Your task to perform on an android device: delete location history Image 0: 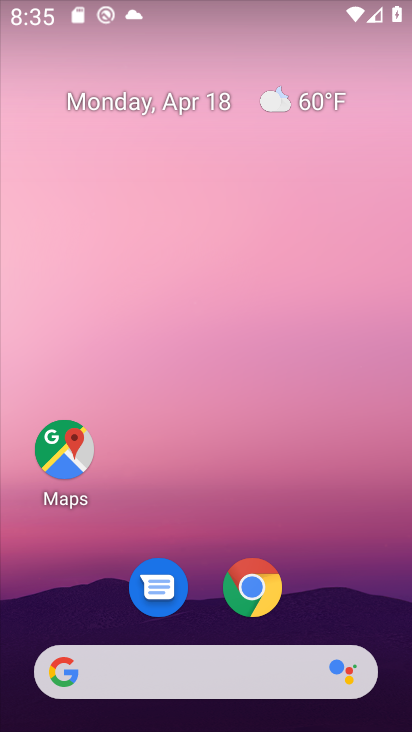
Step 0: drag from (370, 580) to (306, 110)
Your task to perform on an android device: delete location history Image 1: 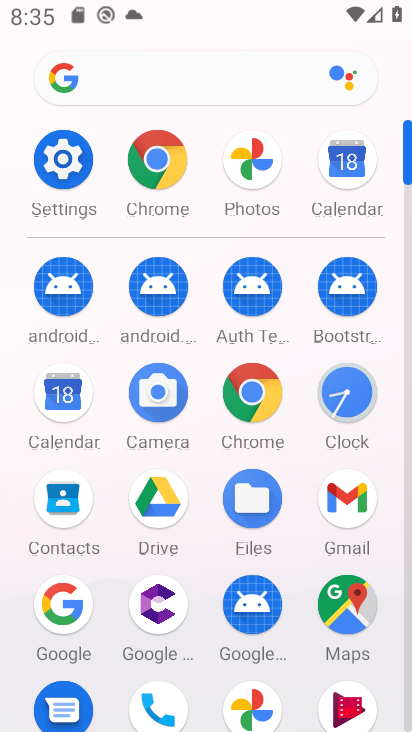
Step 1: click (78, 214)
Your task to perform on an android device: delete location history Image 2: 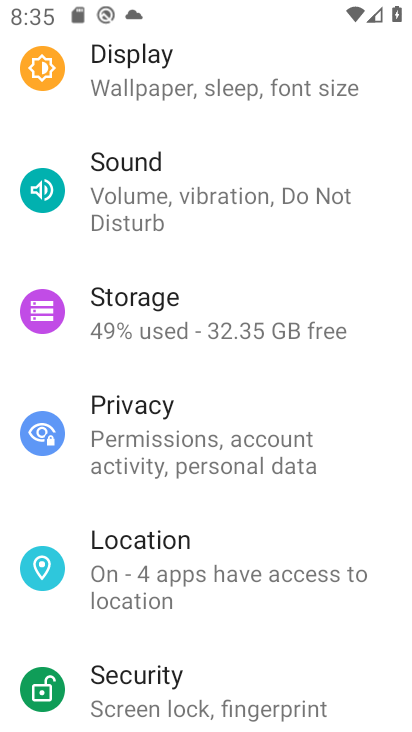
Step 2: click (312, 578)
Your task to perform on an android device: delete location history Image 3: 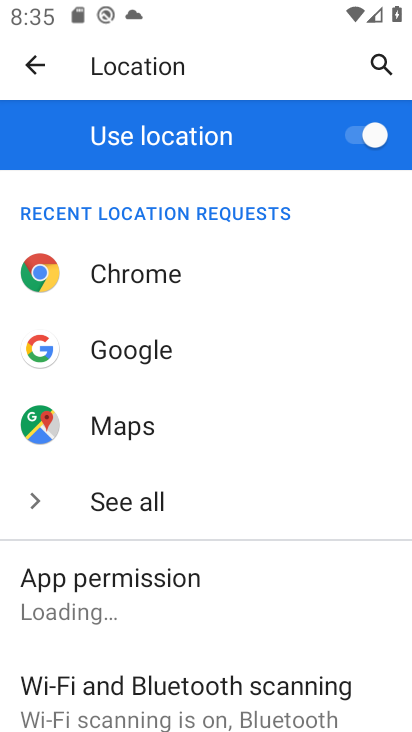
Step 3: drag from (306, 608) to (314, 211)
Your task to perform on an android device: delete location history Image 4: 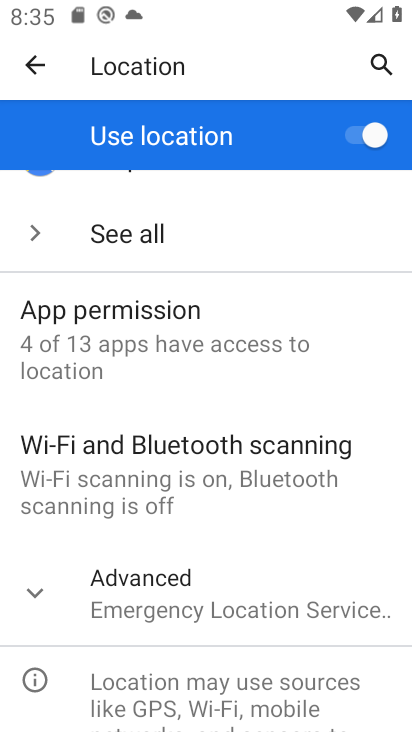
Step 4: click (267, 592)
Your task to perform on an android device: delete location history Image 5: 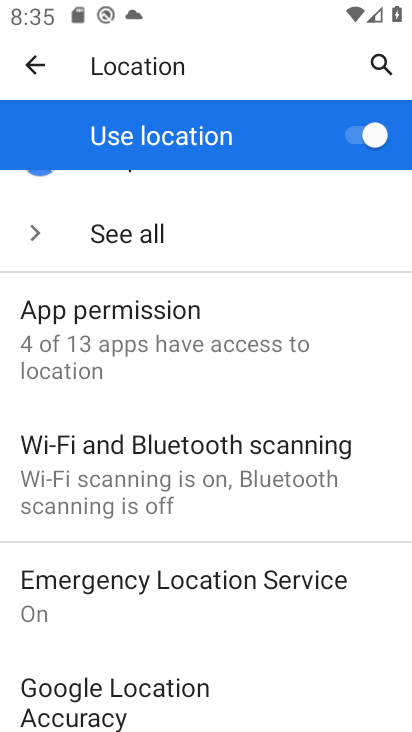
Step 5: drag from (274, 653) to (311, 216)
Your task to perform on an android device: delete location history Image 6: 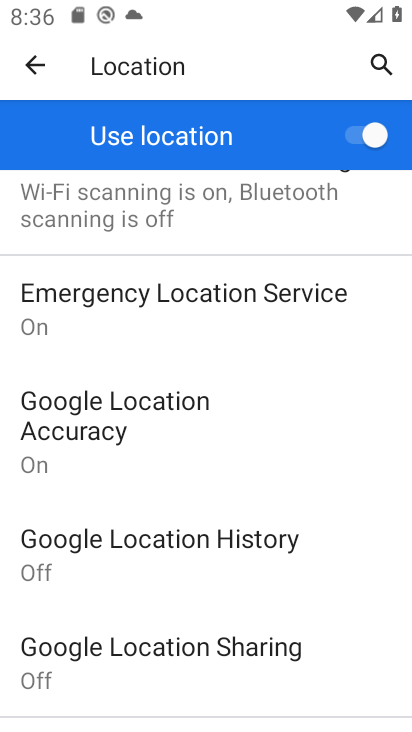
Step 6: click (269, 637)
Your task to perform on an android device: delete location history Image 7: 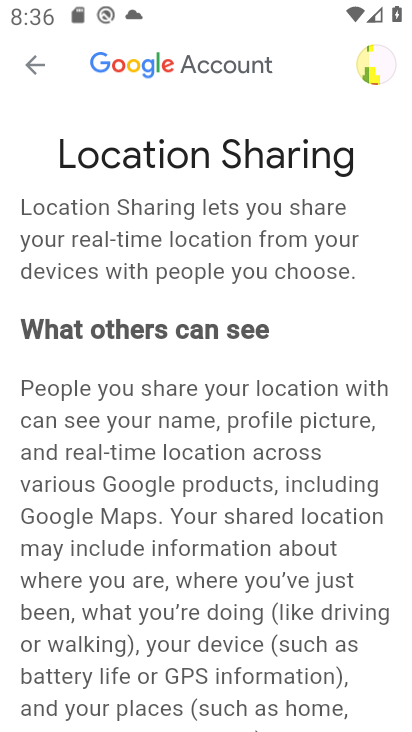
Step 7: task complete